Your task to perform on an android device: delete browsing data in the chrome app Image 0: 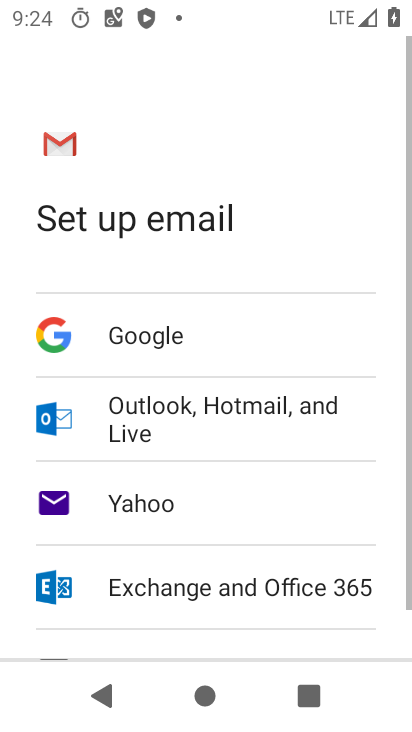
Step 0: press home button
Your task to perform on an android device: delete browsing data in the chrome app Image 1: 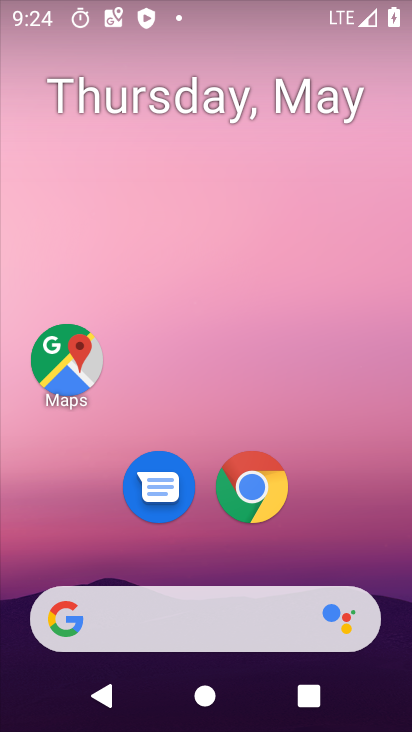
Step 1: drag from (242, 611) to (282, 221)
Your task to perform on an android device: delete browsing data in the chrome app Image 2: 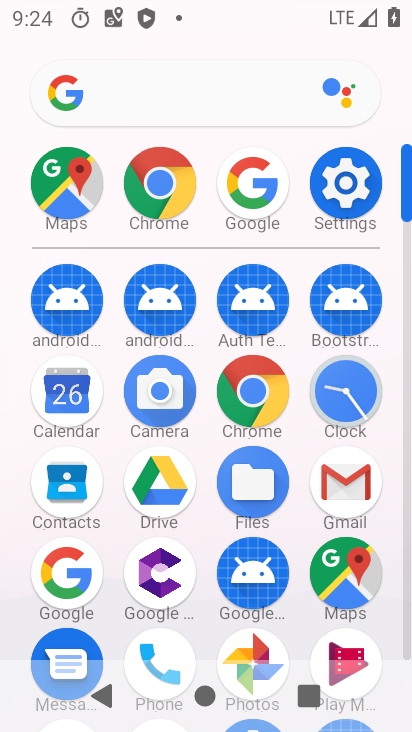
Step 2: click (171, 192)
Your task to perform on an android device: delete browsing data in the chrome app Image 3: 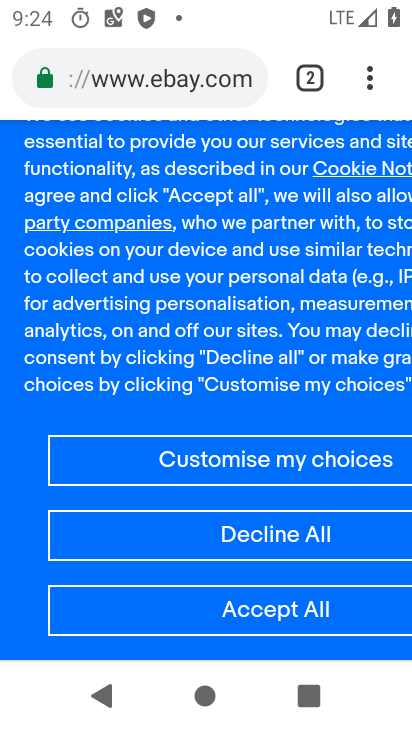
Step 3: click (361, 87)
Your task to perform on an android device: delete browsing data in the chrome app Image 4: 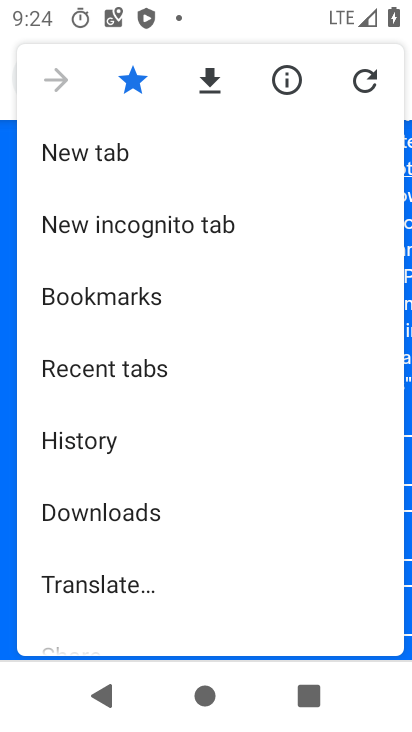
Step 4: click (116, 438)
Your task to perform on an android device: delete browsing data in the chrome app Image 5: 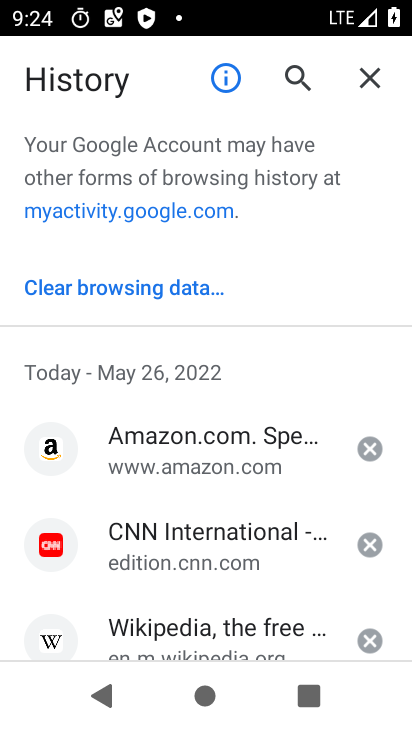
Step 5: click (129, 301)
Your task to perform on an android device: delete browsing data in the chrome app Image 6: 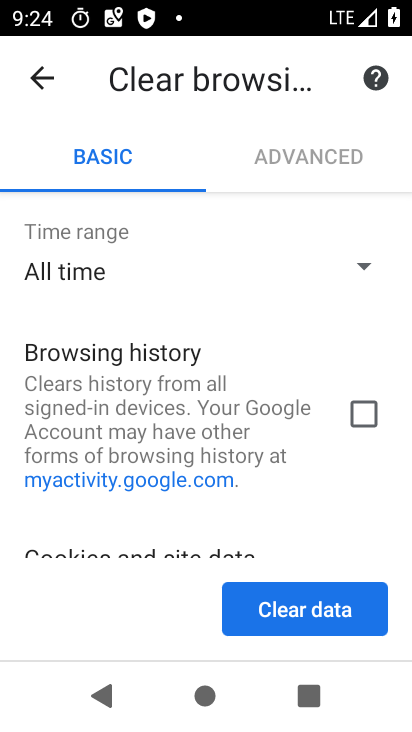
Step 6: click (358, 428)
Your task to perform on an android device: delete browsing data in the chrome app Image 7: 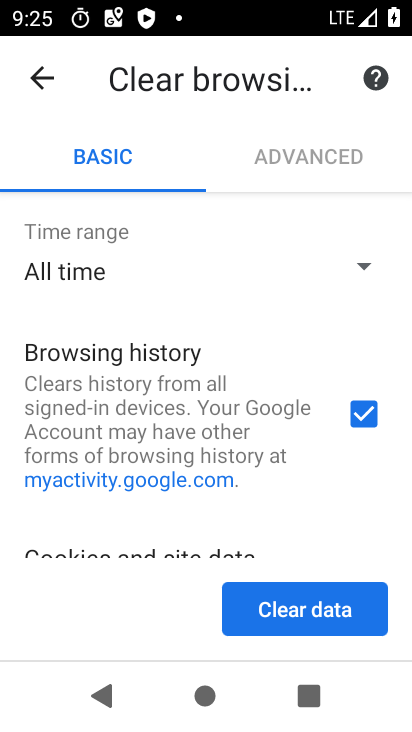
Step 7: click (342, 599)
Your task to perform on an android device: delete browsing data in the chrome app Image 8: 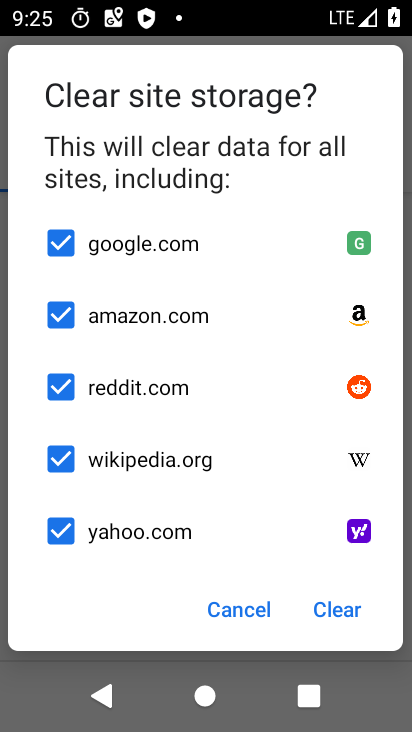
Step 8: click (342, 618)
Your task to perform on an android device: delete browsing data in the chrome app Image 9: 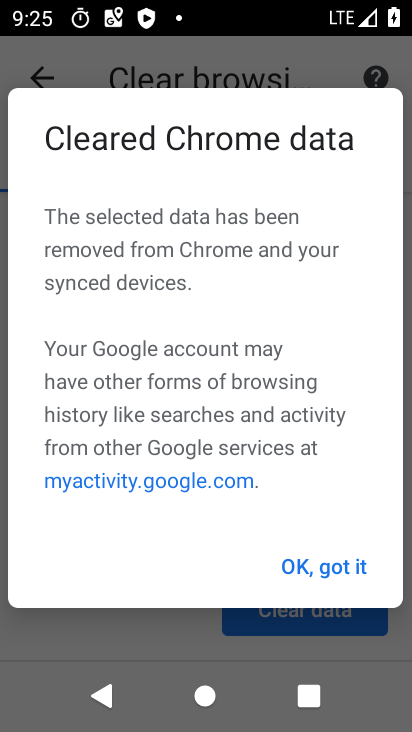
Step 9: click (310, 563)
Your task to perform on an android device: delete browsing data in the chrome app Image 10: 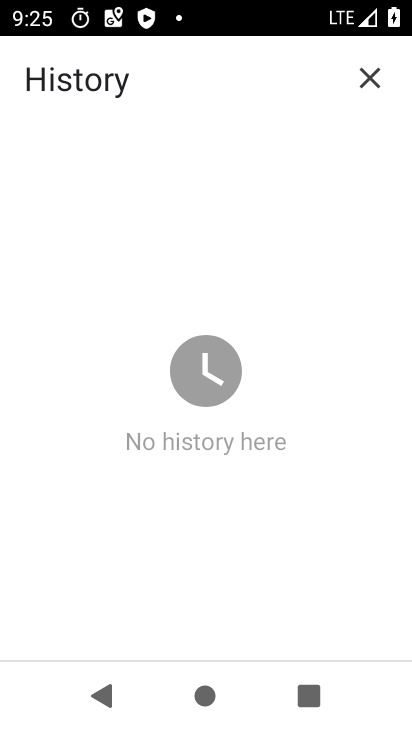
Step 10: task complete